Your task to perform on an android device: Clear all items from cart on target.com. Search for razer kraken on target.com, select the first entry, and add it to the cart. Image 0: 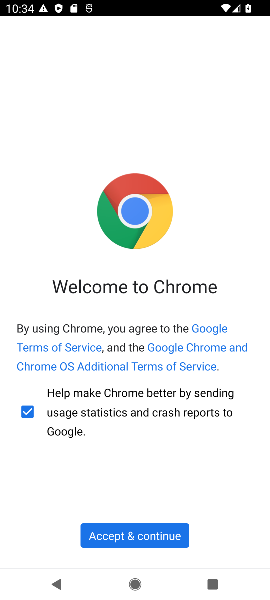
Step 0: click (163, 539)
Your task to perform on an android device: Clear all items from cart on target.com. Search for razer kraken on target.com, select the first entry, and add it to the cart. Image 1: 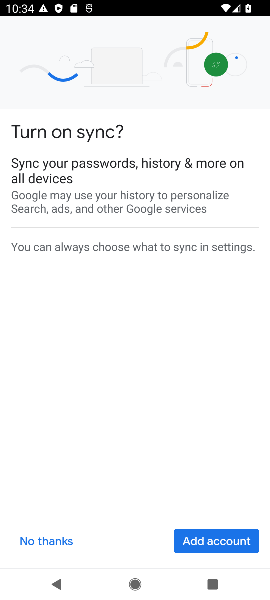
Step 1: click (211, 540)
Your task to perform on an android device: Clear all items from cart on target.com. Search for razer kraken on target.com, select the first entry, and add it to the cart. Image 2: 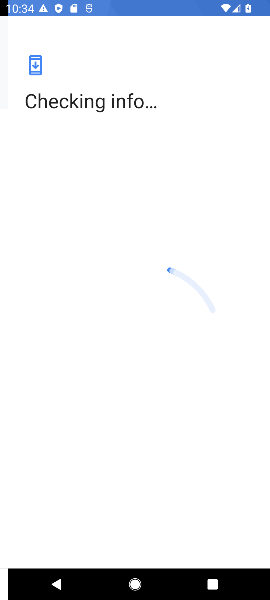
Step 2: press home button
Your task to perform on an android device: Clear all items from cart on target.com. Search for razer kraken on target.com, select the first entry, and add it to the cart. Image 3: 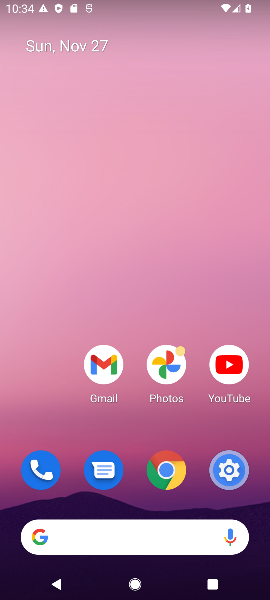
Step 3: click (138, 537)
Your task to perform on an android device: Clear all items from cart on target.com. Search for razer kraken on target.com, select the first entry, and add it to the cart. Image 4: 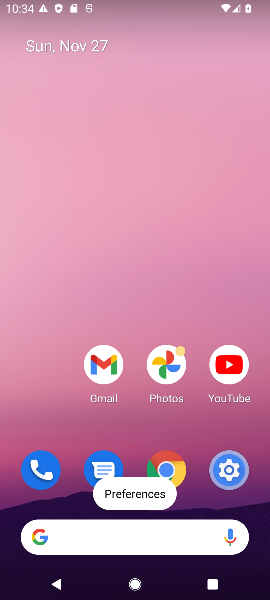
Step 4: type "target"
Your task to perform on an android device: Clear all items from cart on target.com. Search for razer kraken on target.com, select the first entry, and add it to the cart. Image 5: 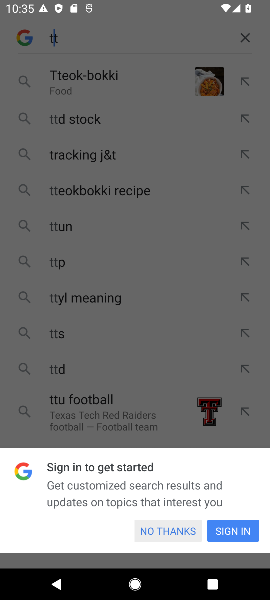
Step 5: click (189, 532)
Your task to perform on an android device: Clear all items from cart on target.com. Search for razer kraken on target.com, select the first entry, and add it to the cart. Image 6: 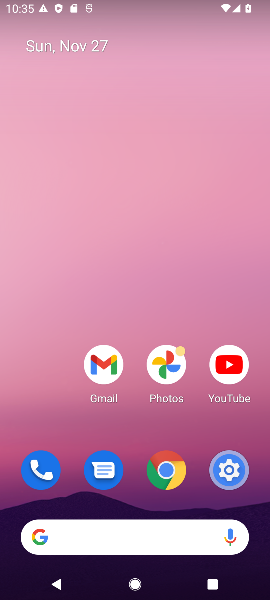
Step 6: click (133, 549)
Your task to perform on an android device: Clear all items from cart on target.com. Search for razer kraken on target.com, select the first entry, and add it to the cart. Image 7: 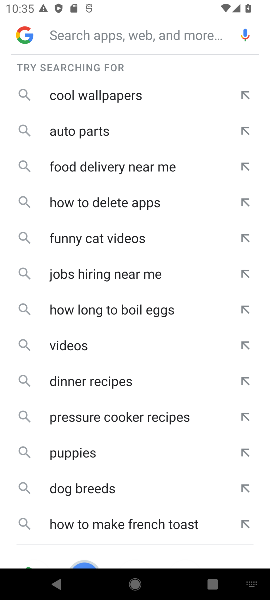
Step 7: type "target"
Your task to perform on an android device: Clear all items from cart on target.com. Search for razer kraken on target.com, select the first entry, and add it to the cart. Image 8: 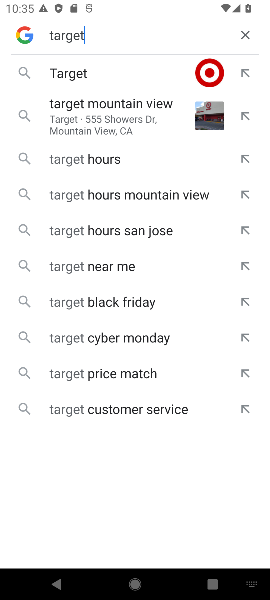
Step 8: click (102, 86)
Your task to perform on an android device: Clear all items from cart on target.com. Search for razer kraken on target.com, select the first entry, and add it to the cart. Image 9: 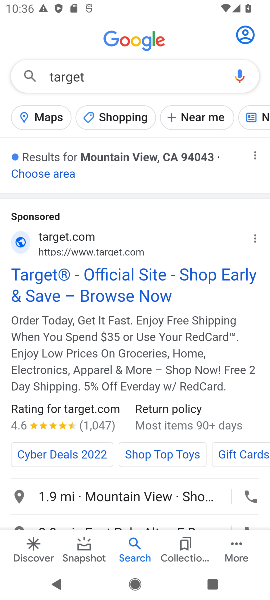
Step 9: task complete